Your task to perform on an android device: show emergency info Image 0: 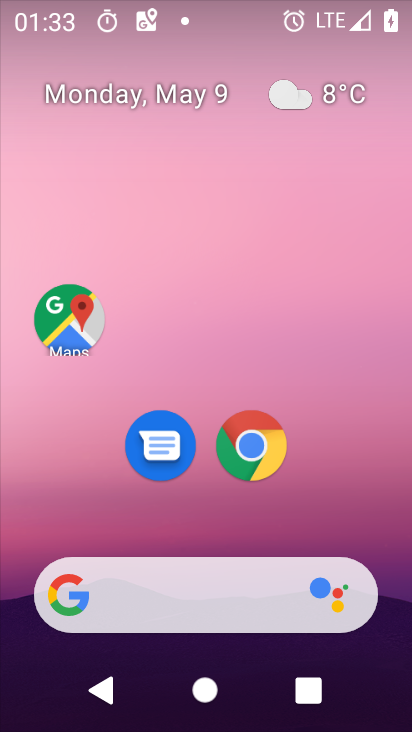
Step 0: drag from (378, 554) to (381, 1)
Your task to perform on an android device: show emergency info Image 1: 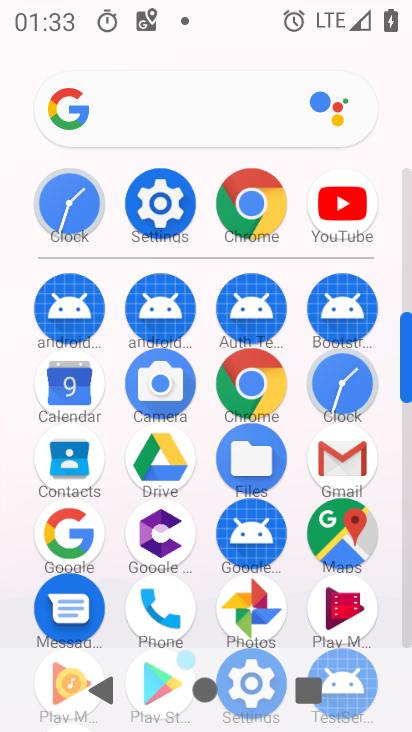
Step 1: click (159, 205)
Your task to perform on an android device: show emergency info Image 2: 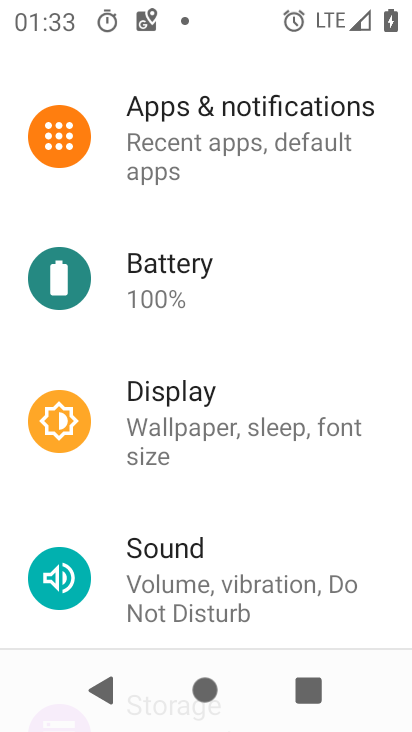
Step 2: drag from (295, 549) to (274, 121)
Your task to perform on an android device: show emergency info Image 3: 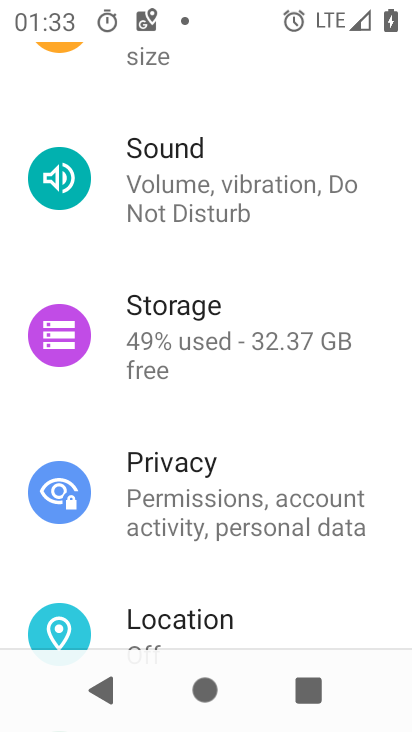
Step 3: drag from (359, 557) to (308, 141)
Your task to perform on an android device: show emergency info Image 4: 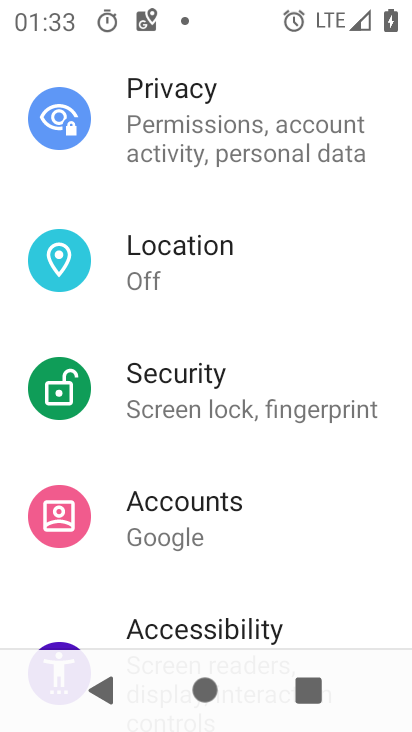
Step 4: drag from (263, 565) to (260, 124)
Your task to perform on an android device: show emergency info Image 5: 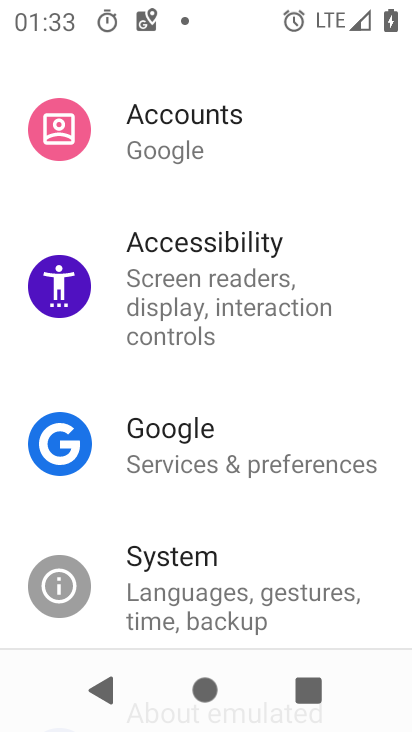
Step 5: drag from (253, 500) to (266, 138)
Your task to perform on an android device: show emergency info Image 6: 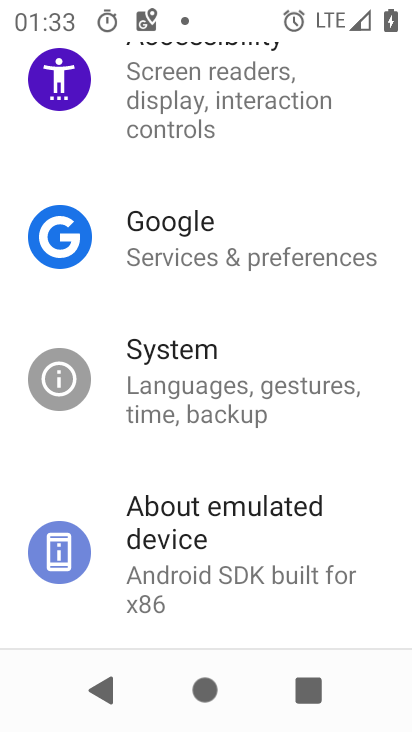
Step 6: click (176, 542)
Your task to perform on an android device: show emergency info Image 7: 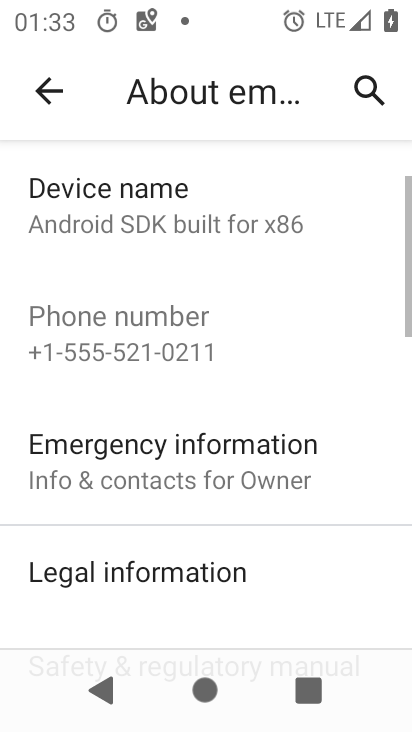
Step 7: click (155, 480)
Your task to perform on an android device: show emergency info Image 8: 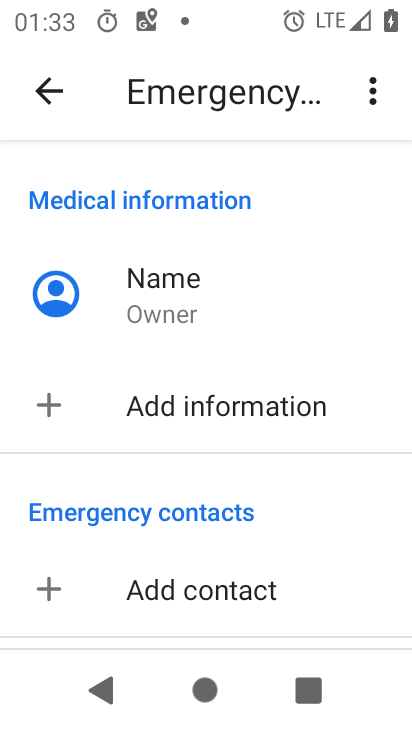
Step 8: task complete